Your task to perform on an android device: Turn off the flashlight Image 0: 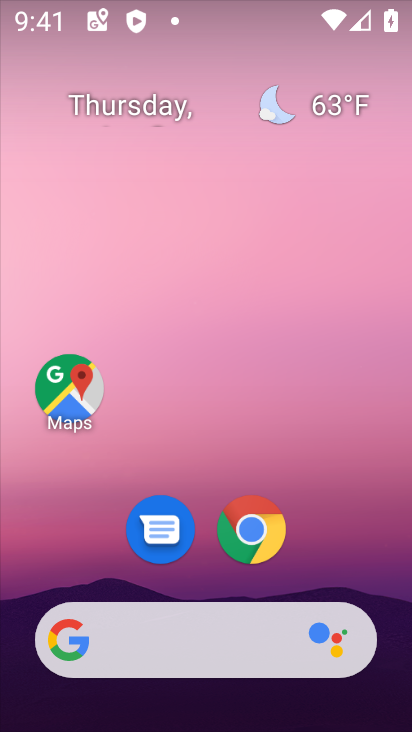
Step 0: drag from (309, 4) to (339, 473)
Your task to perform on an android device: Turn off the flashlight Image 1: 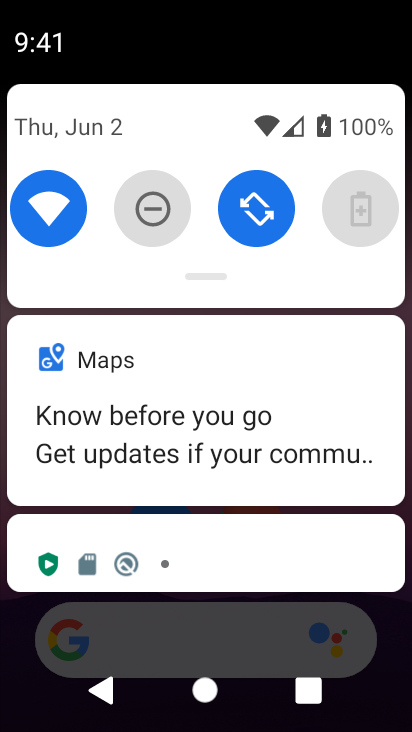
Step 1: drag from (236, 262) to (395, 610)
Your task to perform on an android device: Turn off the flashlight Image 2: 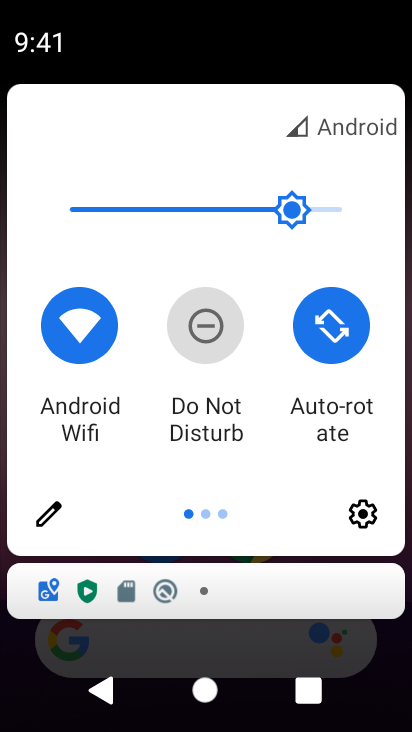
Step 2: click (46, 504)
Your task to perform on an android device: Turn off the flashlight Image 3: 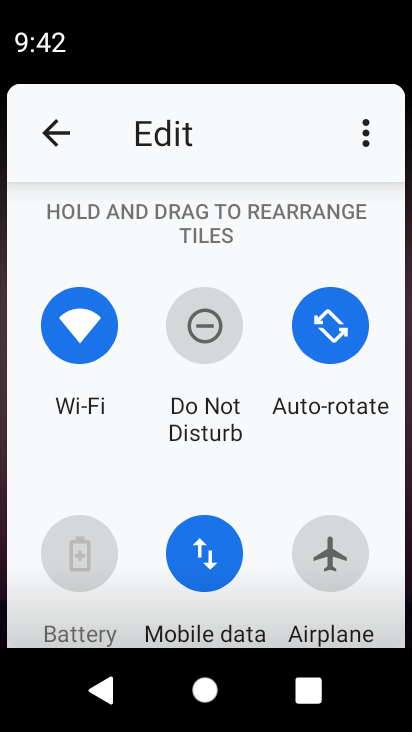
Step 3: task complete